Your task to perform on an android device: empty trash in the gmail app Image 0: 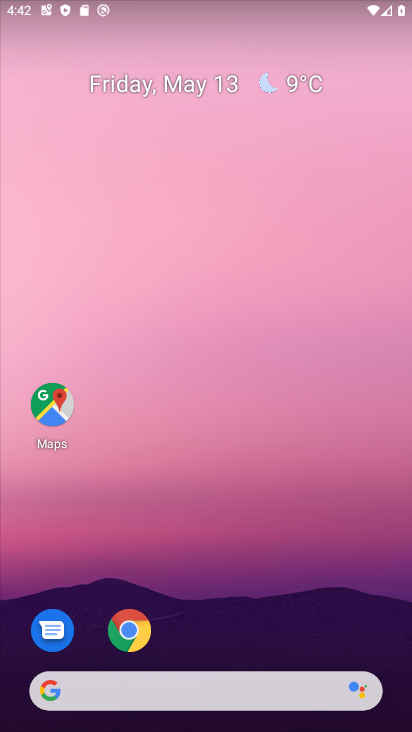
Step 0: drag from (255, 526) to (192, 77)
Your task to perform on an android device: empty trash in the gmail app Image 1: 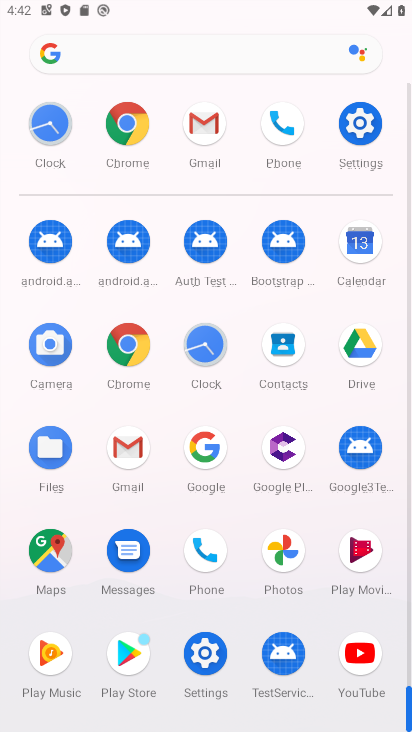
Step 1: drag from (15, 536) to (15, 243)
Your task to perform on an android device: empty trash in the gmail app Image 2: 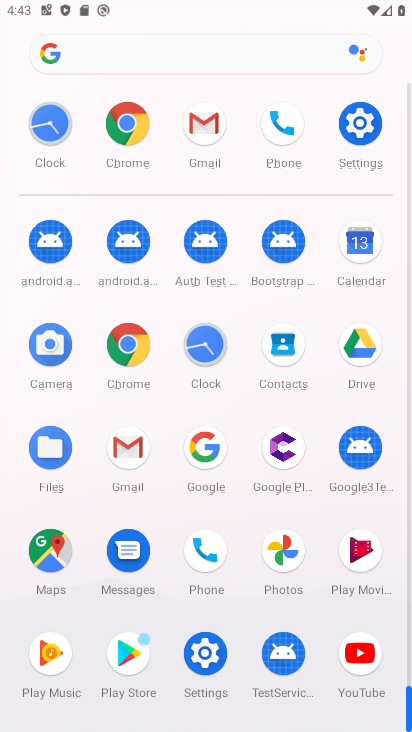
Step 2: click (127, 442)
Your task to perform on an android device: empty trash in the gmail app Image 3: 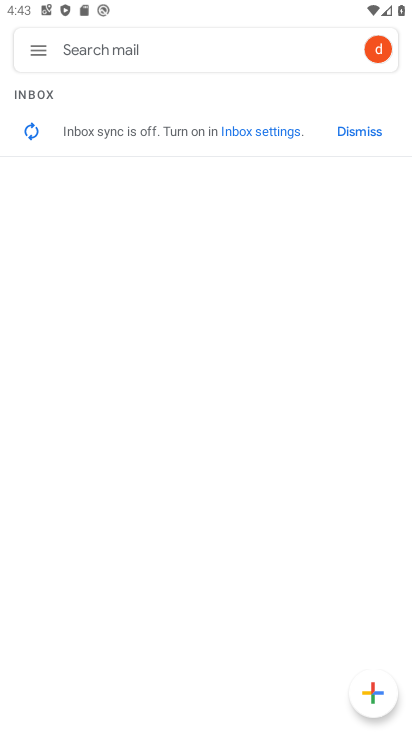
Step 3: click (44, 48)
Your task to perform on an android device: empty trash in the gmail app Image 4: 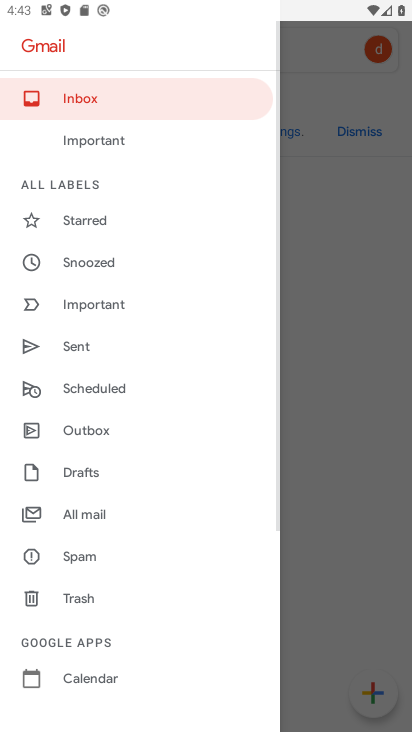
Step 4: drag from (126, 475) to (138, 171)
Your task to perform on an android device: empty trash in the gmail app Image 5: 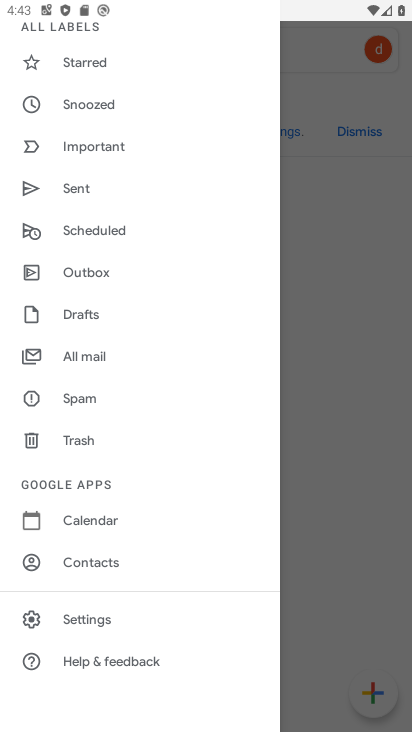
Step 5: click (77, 436)
Your task to perform on an android device: empty trash in the gmail app Image 6: 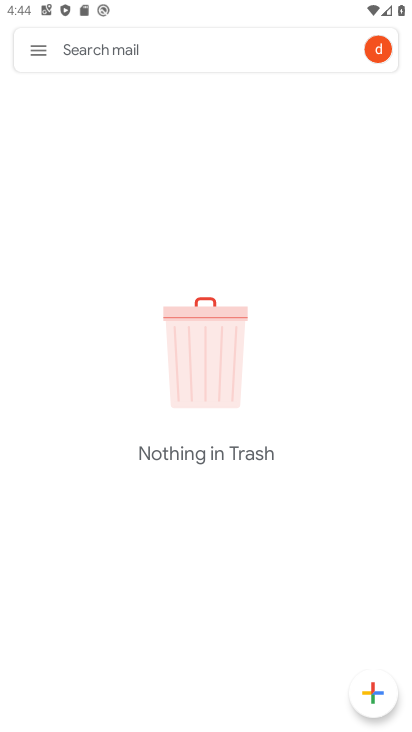
Step 6: task complete